Your task to perform on an android device: Check the weather Image 0: 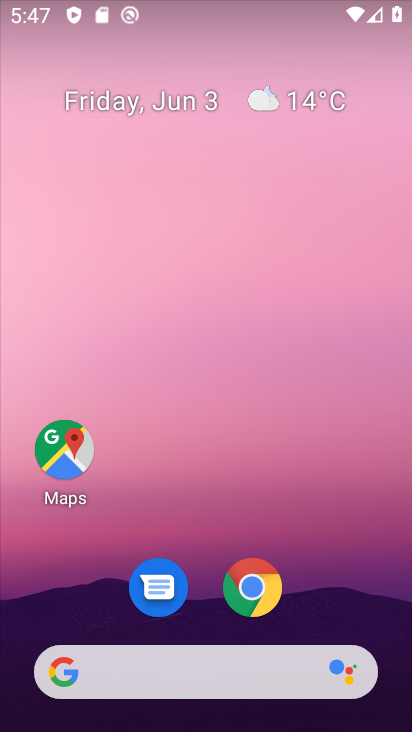
Step 0: drag from (334, 572) to (212, 55)
Your task to perform on an android device: Check the weather Image 1: 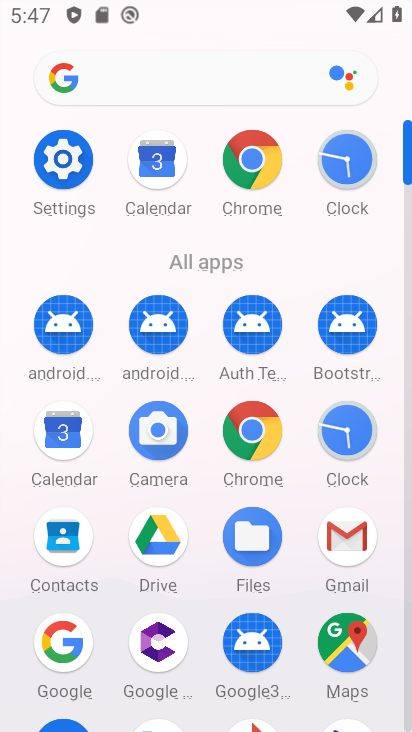
Step 1: drag from (8, 592) to (19, 246)
Your task to perform on an android device: Check the weather Image 2: 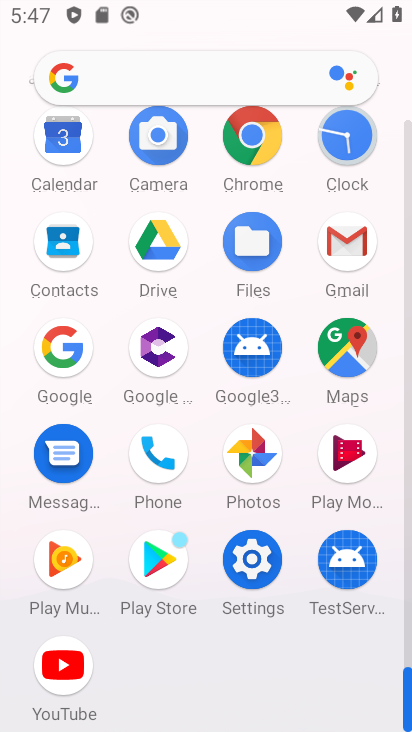
Step 2: click (250, 131)
Your task to perform on an android device: Check the weather Image 3: 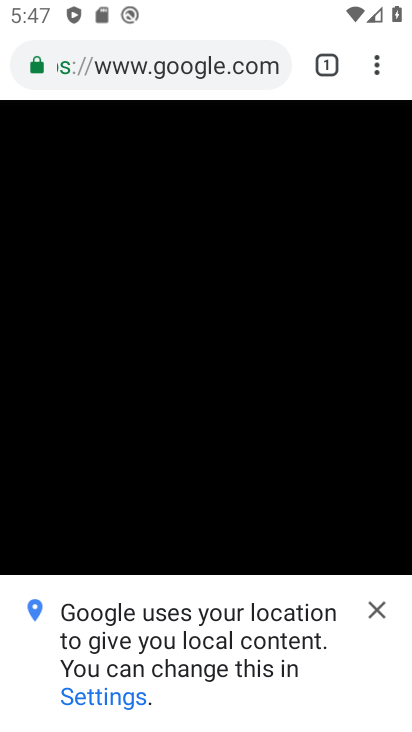
Step 3: click (185, 54)
Your task to perform on an android device: Check the weather Image 4: 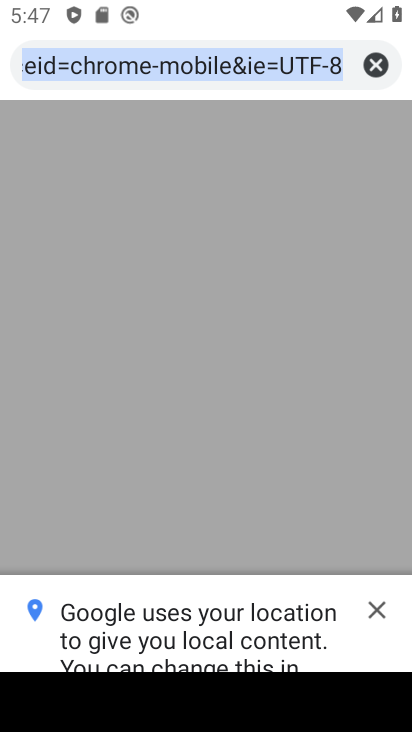
Step 4: click (376, 60)
Your task to perform on an android device: Check the weather Image 5: 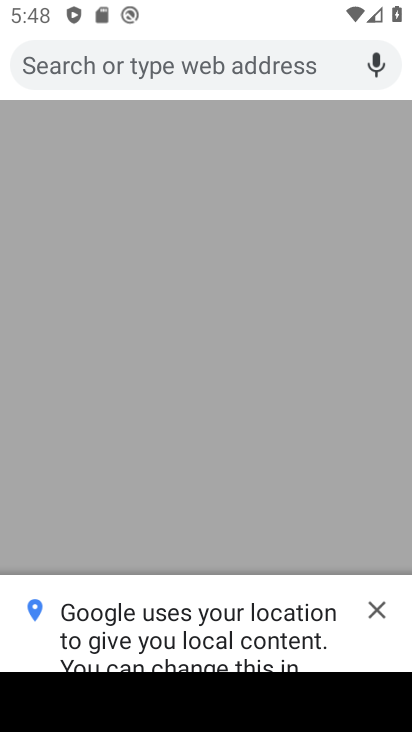
Step 5: type "Check the weather"
Your task to perform on an android device: Check the weather Image 6: 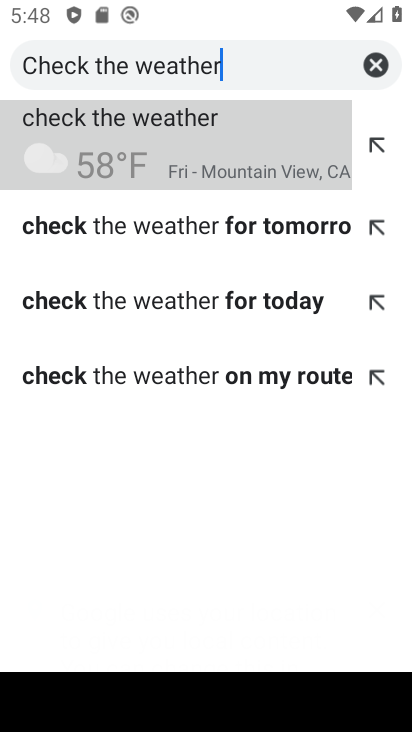
Step 6: click (166, 126)
Your task to perform on an android device: Check the weather Image 7: 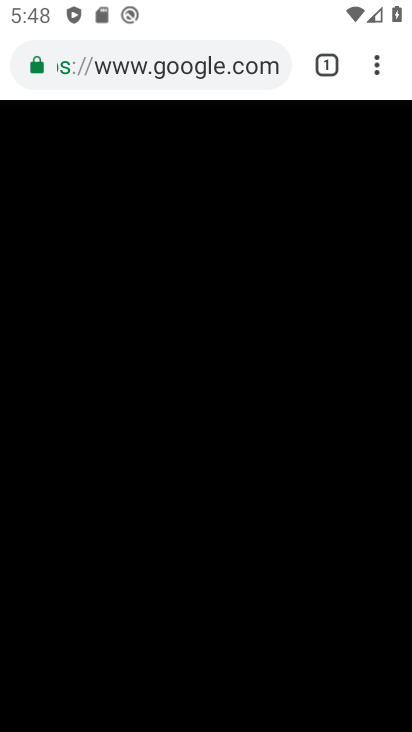
Step 7: task complete